Your task to perform on an android device: set an alarm Image 0: 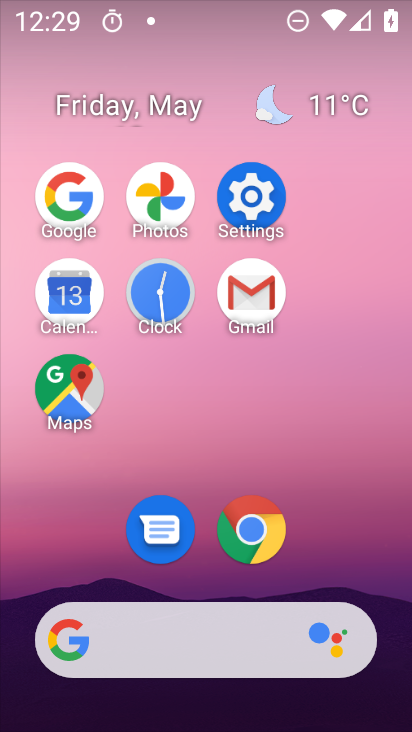
Step 0: click (156, 281)
Your task to perform on an android device: set an alarm Image 1: 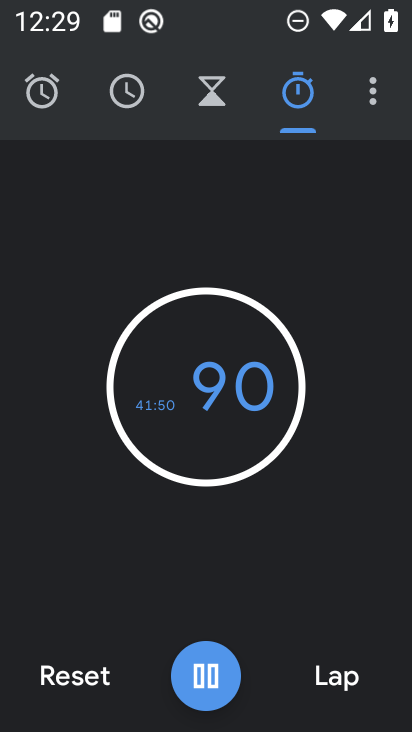
Step 1: click (27, 102)
Your task to perform on an android device: set an alarm Image 2: 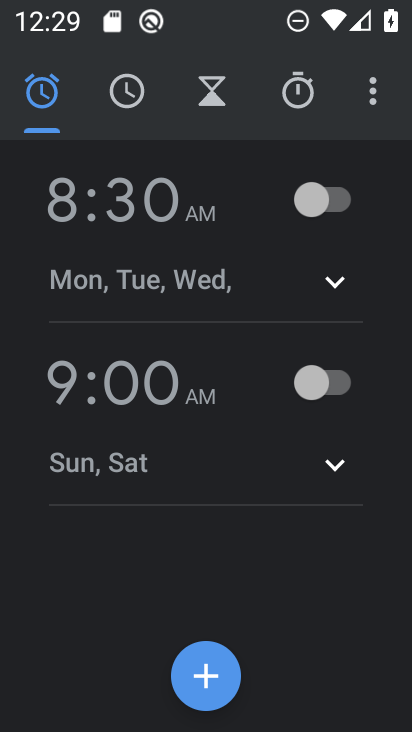
Step 2: click (331, 381)
Your task to perform on an android device: set an alarm Image 3: 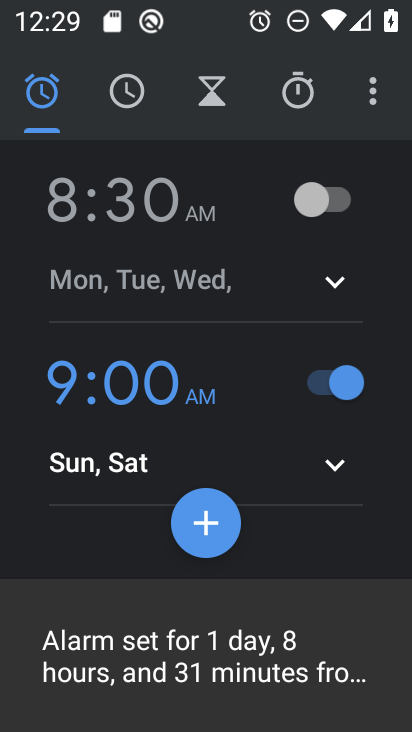
Step 3: task complete